Your task to perform on an android device: check storage Image 0: 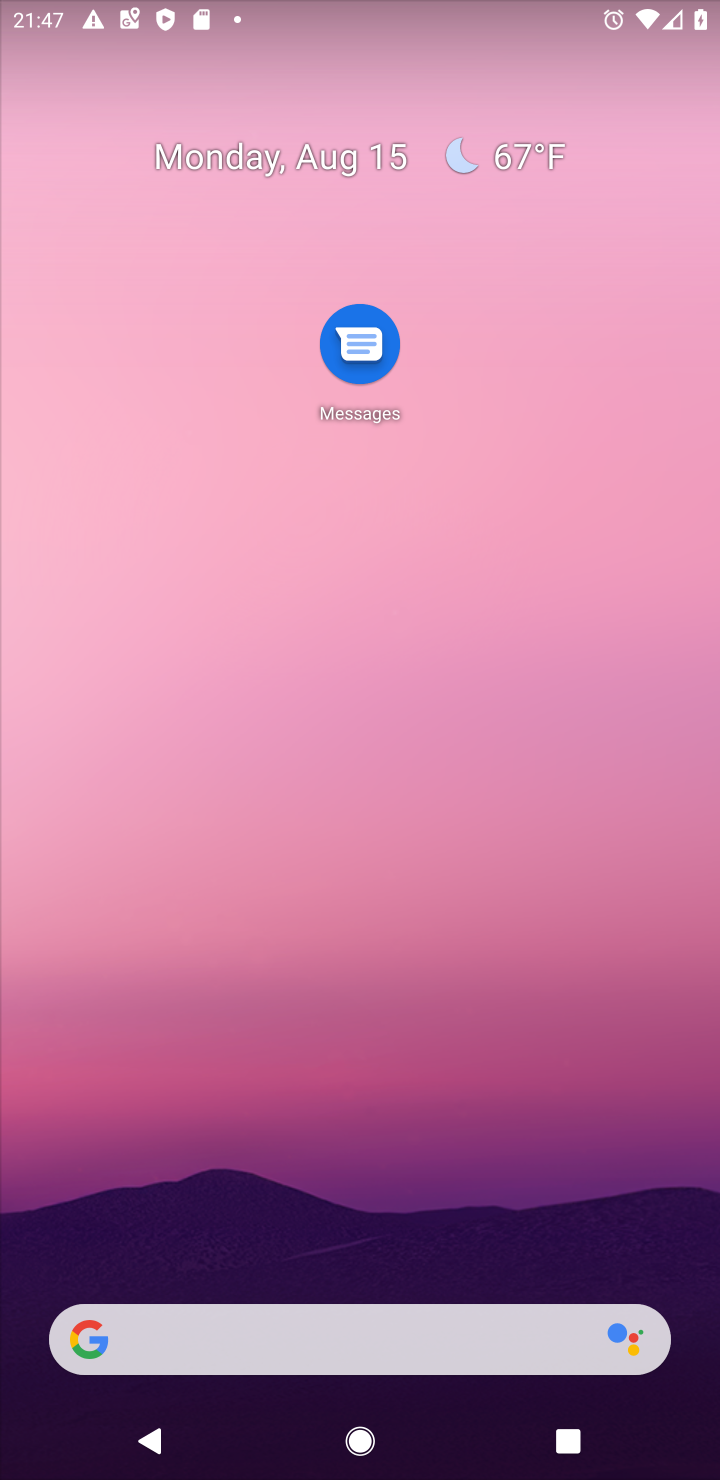
Step 0: drag from (389, 1037) to (446, 364)
Your task to perform on an android device: check storage Image 1: 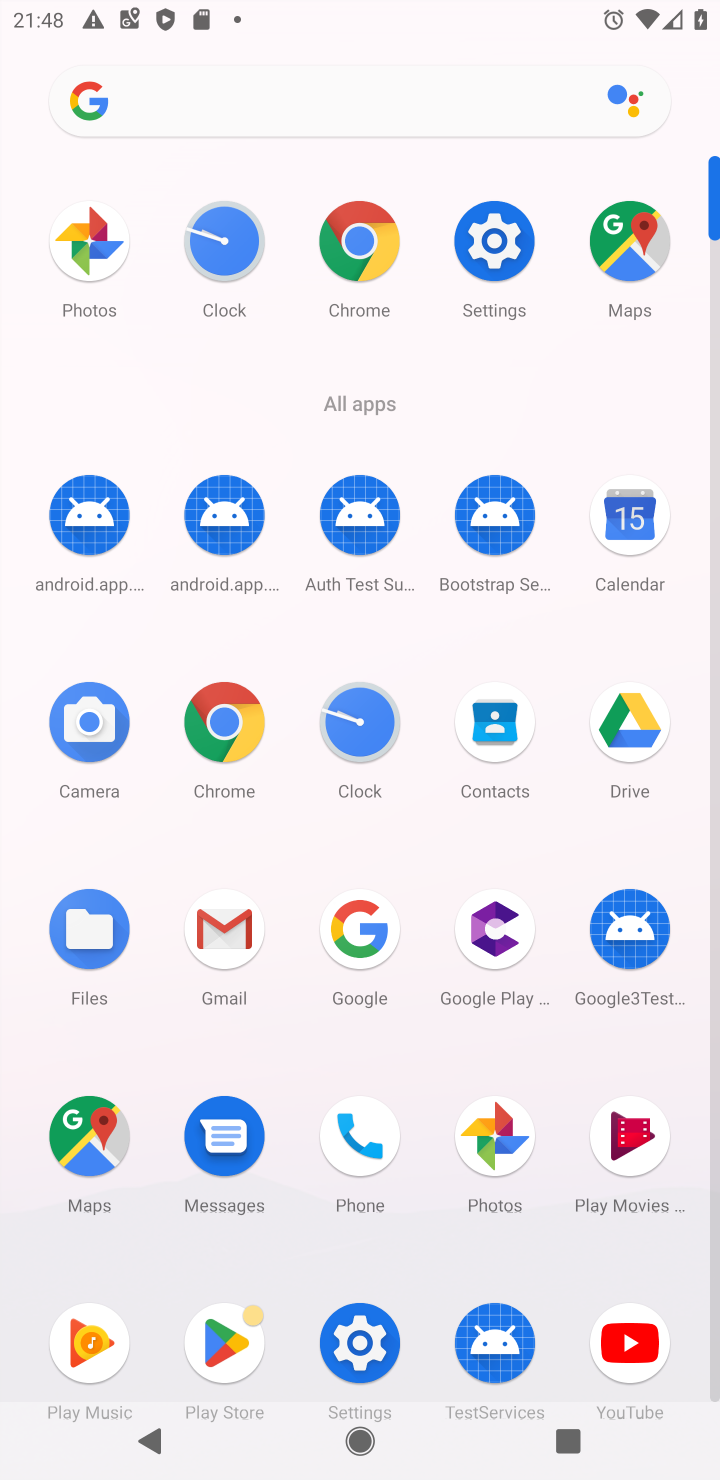
Step 1: click (458, 229)
Your task to perform on an android device: check storage Image 2: 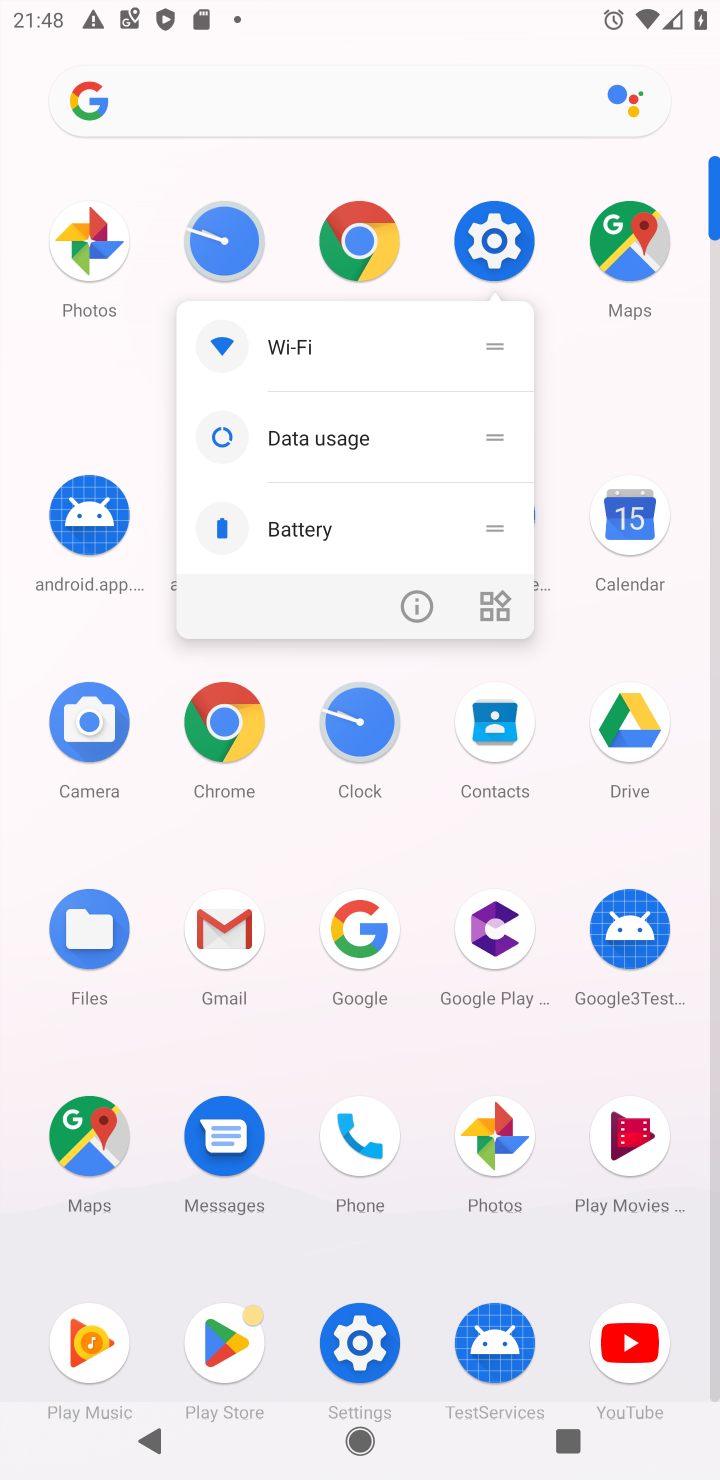
Step 2: click (493, 246)
Your task to perform on an android device: check storage Image 3: 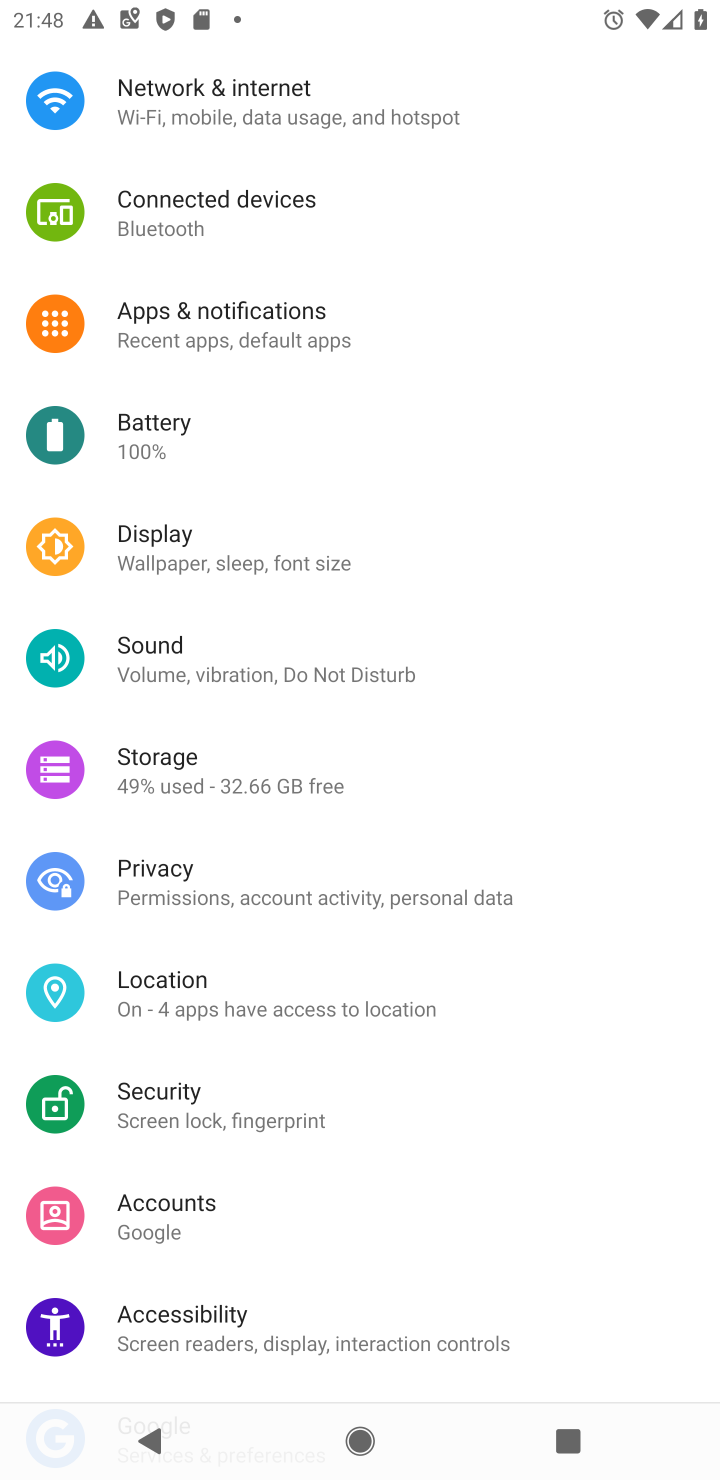
Step 3: click (182, 788)
Your task to perform on an android device: check storage Image 4: 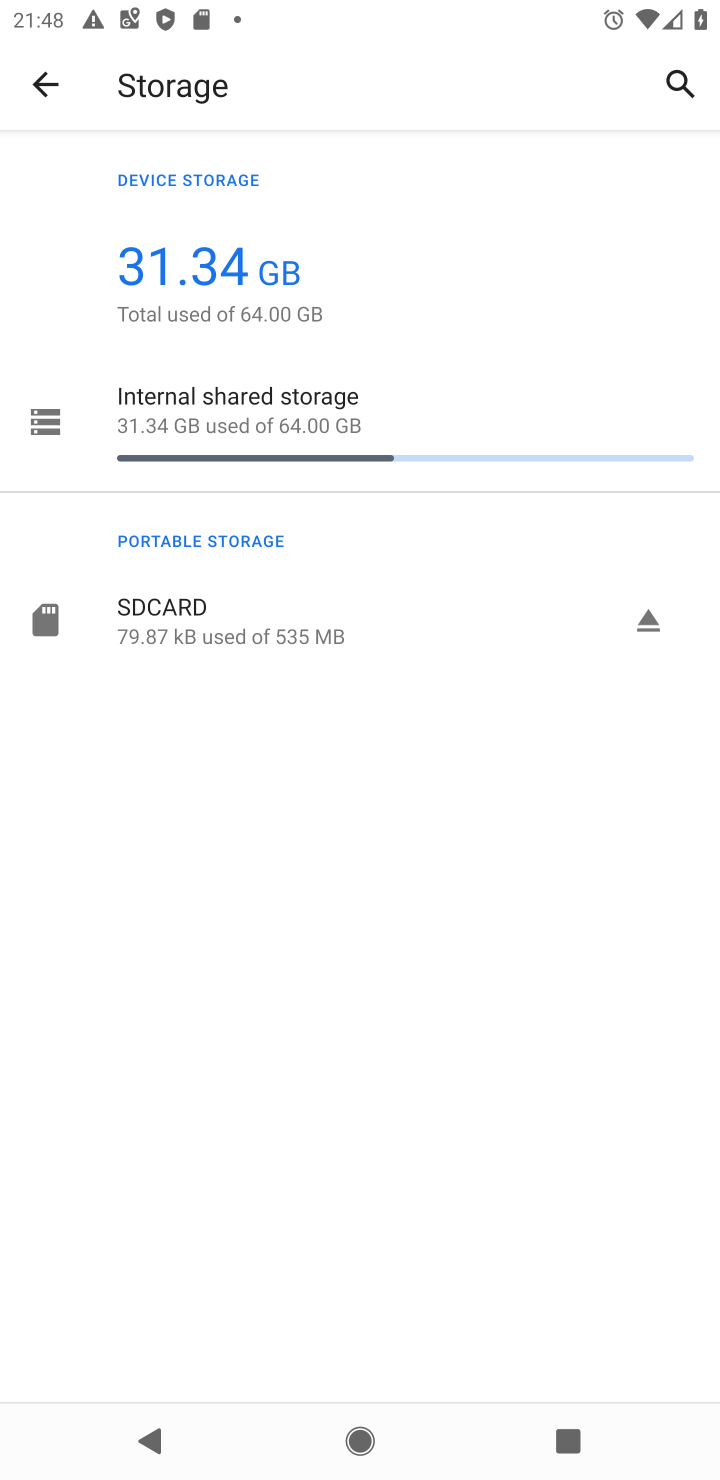
Step 4: task complete